Your task to perform on an android device: Go to Reddit.com Image 0: 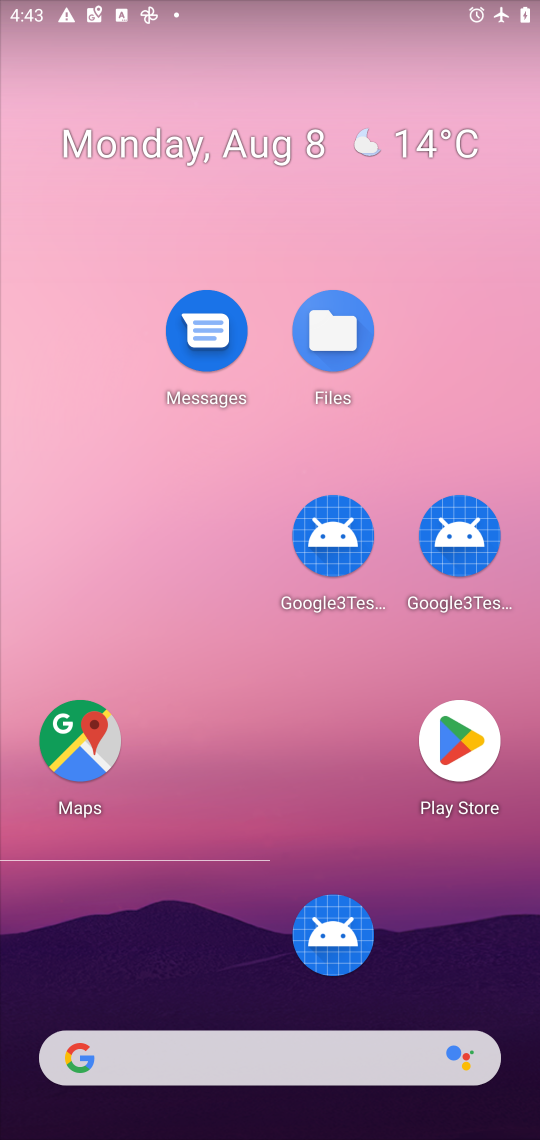
Step 0: drag from (343, 1049) to (396, 203)
Your task to perform on an android device: Go to Reddit.com Image 1: 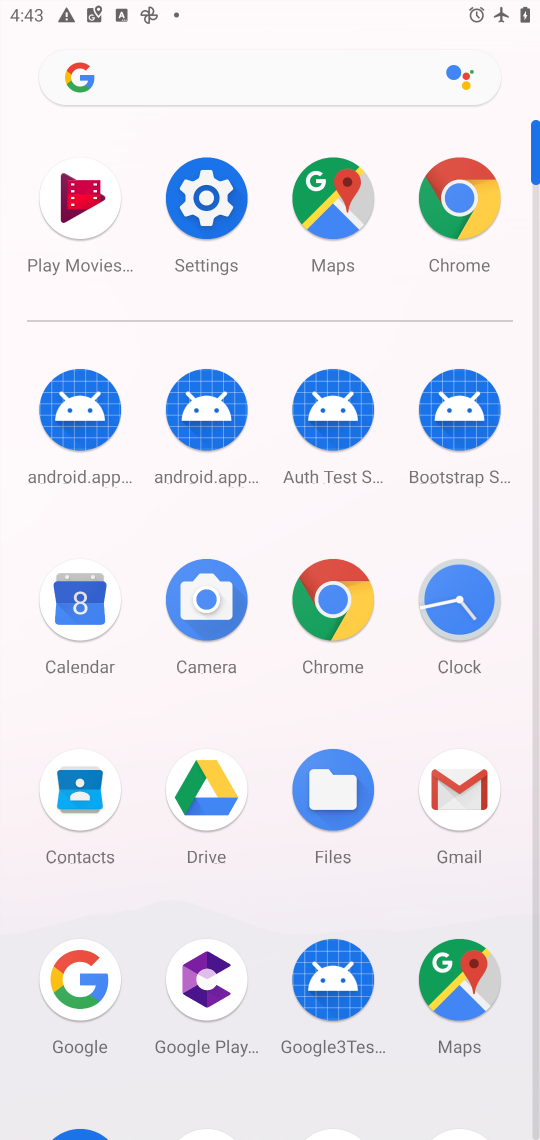
Step 1: click (325, 572)
Your task to perform on an android device: Go to Reddit.com Image 2: 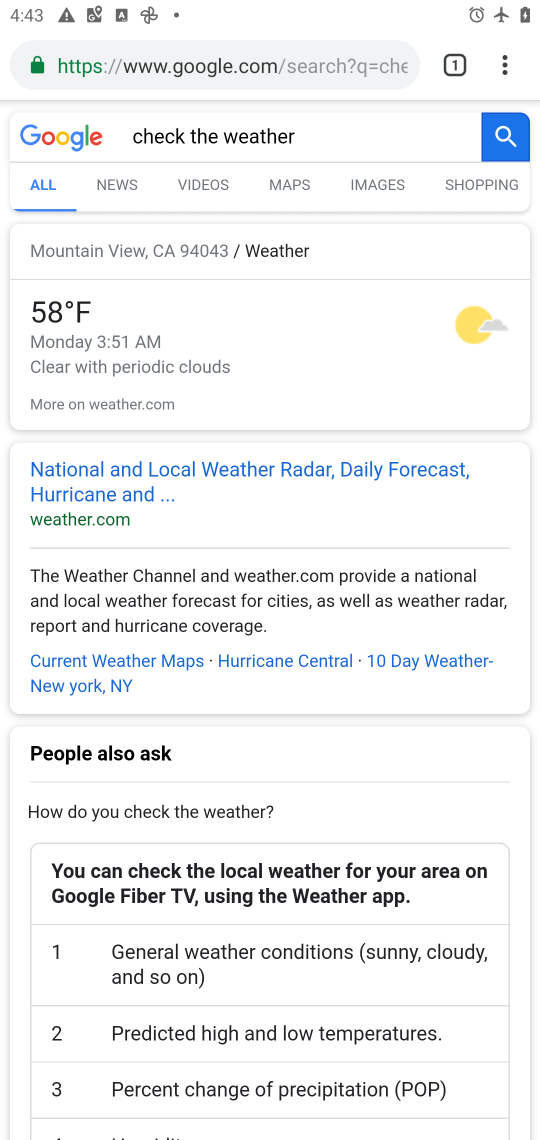
Step 2: click (203, 78)
Your task to perform on an android device: Go to Reddit.com Image 3: 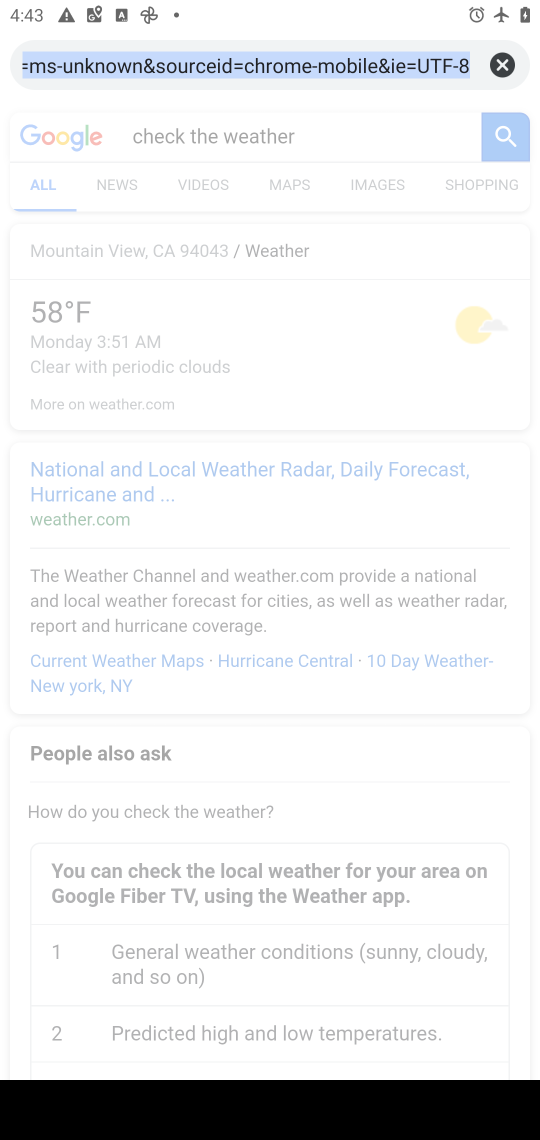
Step 3: type "reddit.com"
Your task to perform on an android device: Go to Reddit.com Image 4: 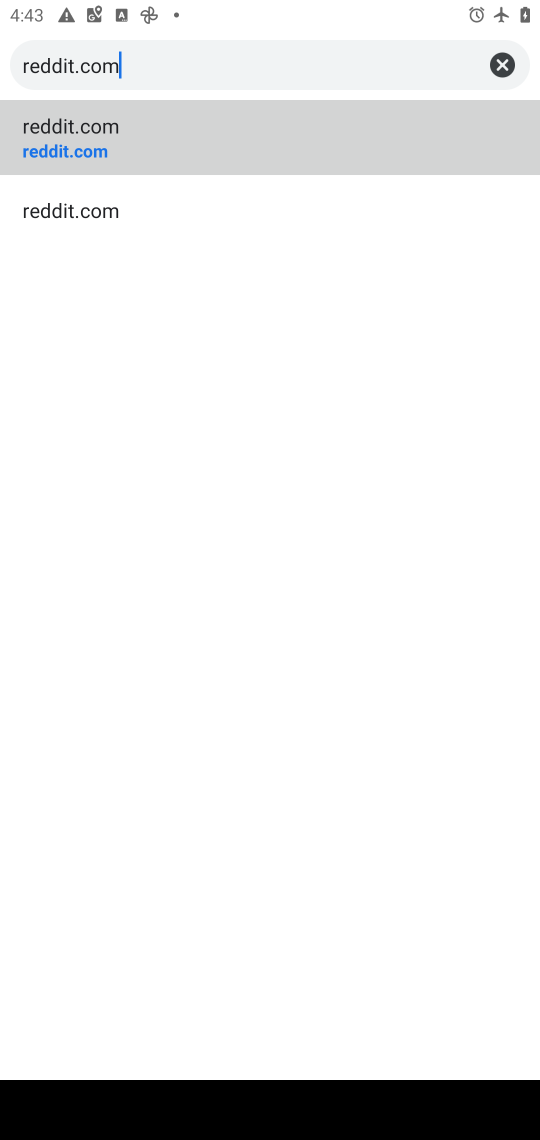
Step 4: click (325, 119)
Your task to perform on an android device: Go to Reddit.com Image 5: 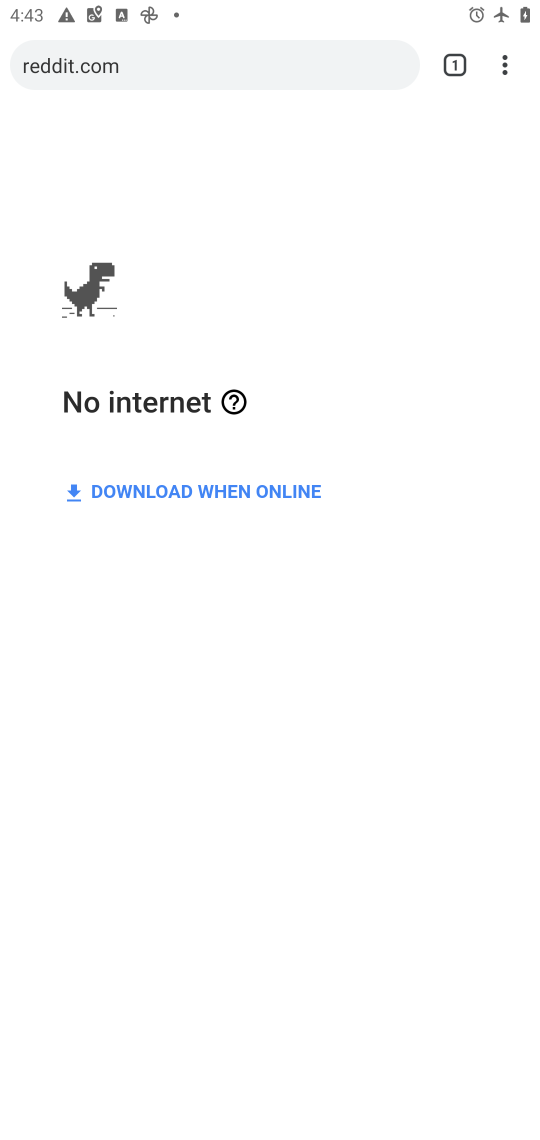
Step 5: task complete